Your task to perform on an android device: empty trash in google photos Image 0: 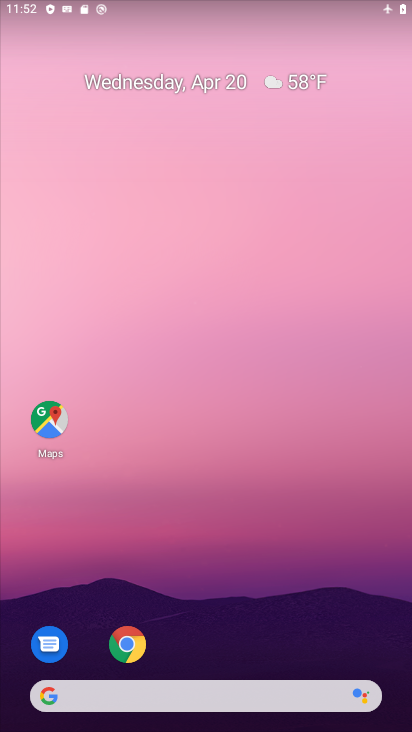
Step 0: drag from (173, 665) to (190, 74)
Your task to perform on an android device: empty trash in google photos Image 1: 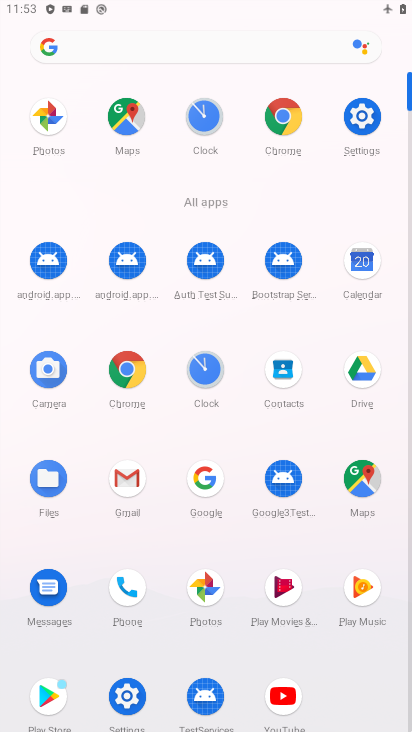
Step 1: click (208, 589)
Your task to perform on an android device: empty trash in google photos Image 2: 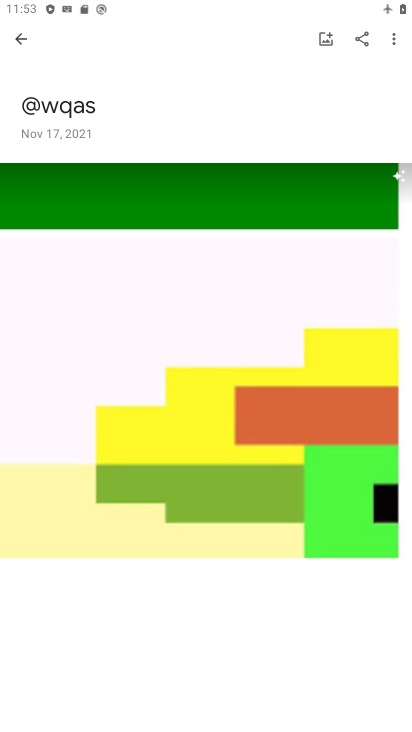
Step 2: click (22, 35)
Your task to perform on an android device: empty trash in google photos Image 3: 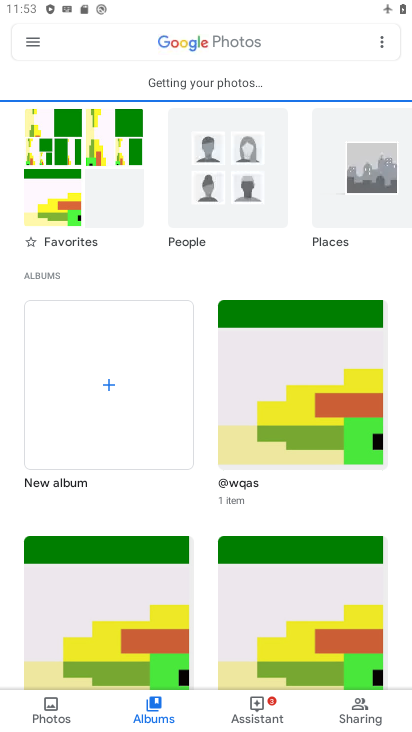
Step 3: click (23, 38)
Your task to perform on an android device: empty trash in google photos Image 4: 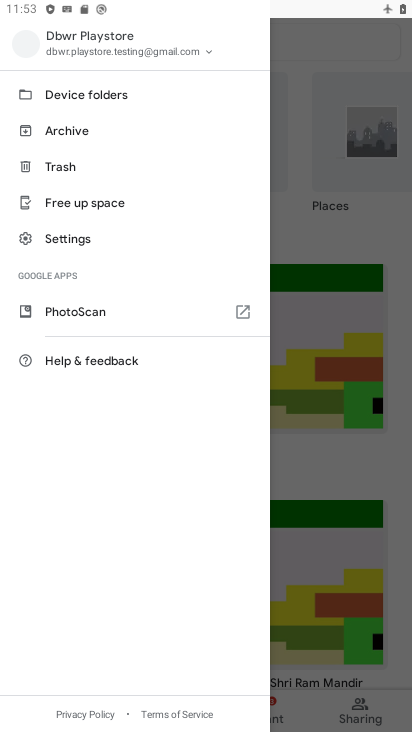
Step 4: click (62, 170)
Your task to perform on an android device: empty trash in google photos Image 5: 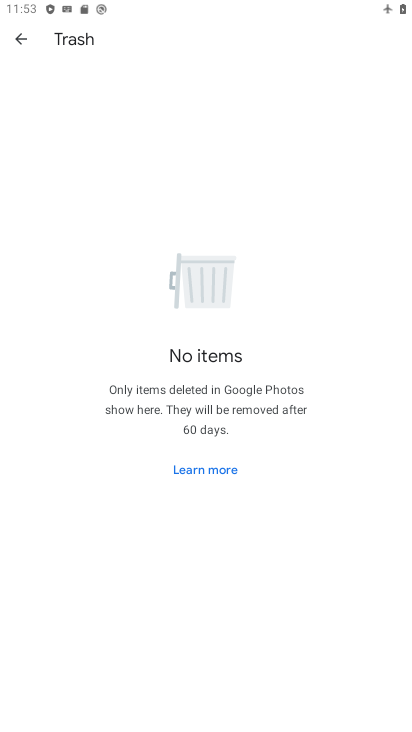
Step 5: task complete